Your task to perform on an android device: turn off airplane mode Image 0: 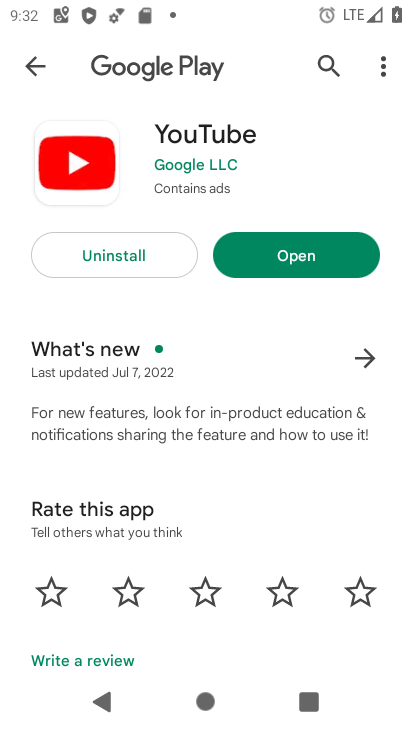
Step 0: press home button
Your task to perform on an android device: turn off airplane mode Image 1: 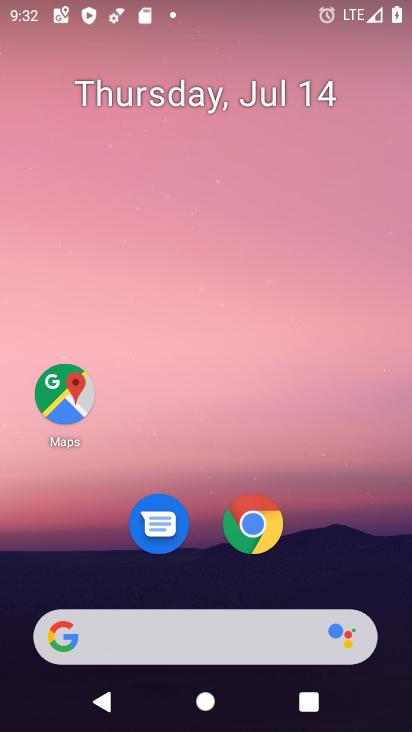
Step 1: drag from (315, 551) to (356, 29)
Your task to perform on an android device: turn off airplane mode Image 2: 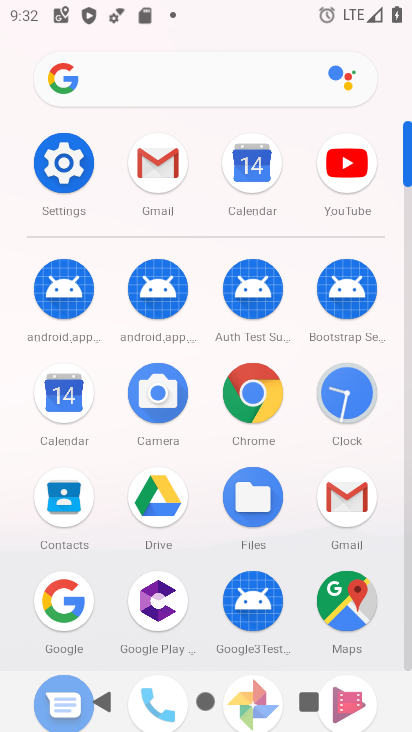
Step 2: click (78, 167)
Your task to perform on an android device: turn off airplane mode Image 3: 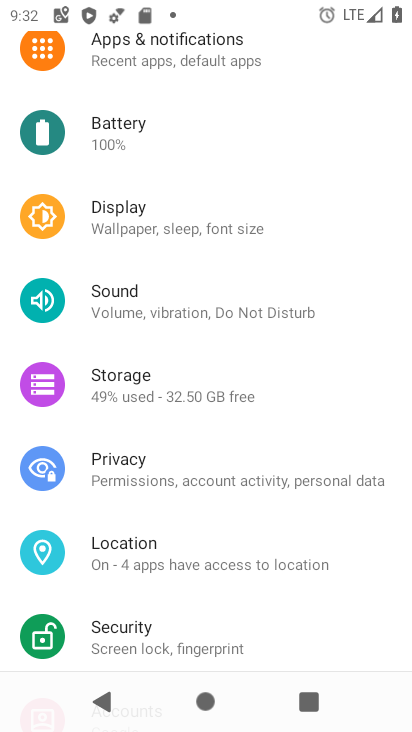
Step 3: drag from (183, 193) to (209, 572)
Your task to perform on an android device: turn off airplane mode Image 4: 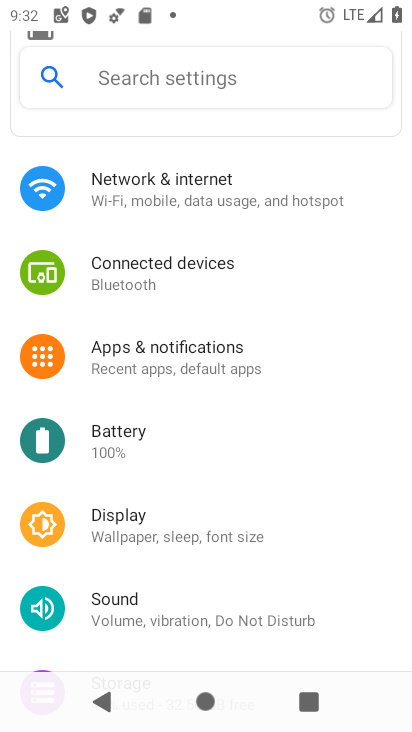
Step 4: click (238, 200)
Your task to perform on an android device: turn off airplane mode Image 5: 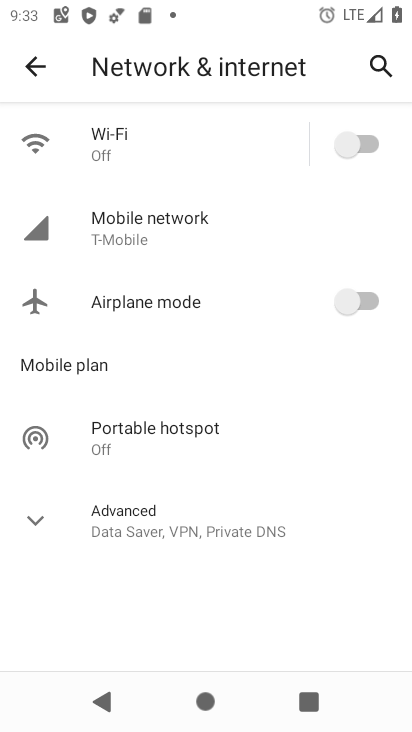
Step 5: task complete